Your task to perform on an android device: turn off javascript in the chrome app Image 0: 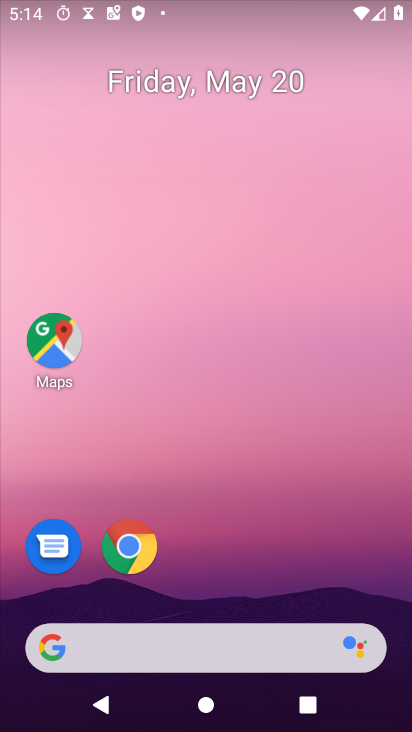
Step 0: click (131, 549)
Your task to perform on an android device: turn off javascript in the chrome app Image 1: 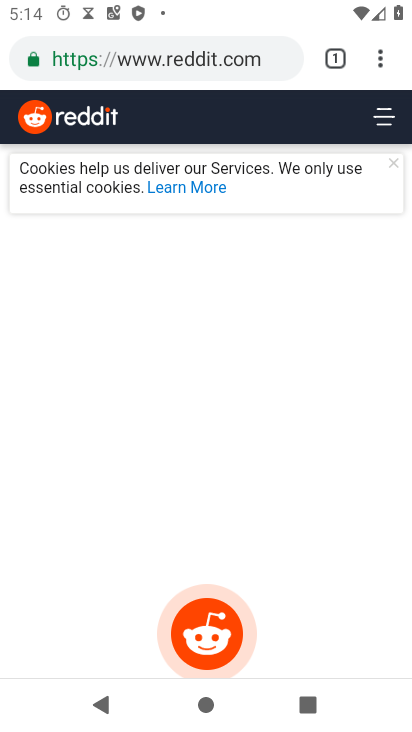
Step 1: click (379, 58)
Your task to perform on an android device: turn off javascript in the chrome app Image 2: 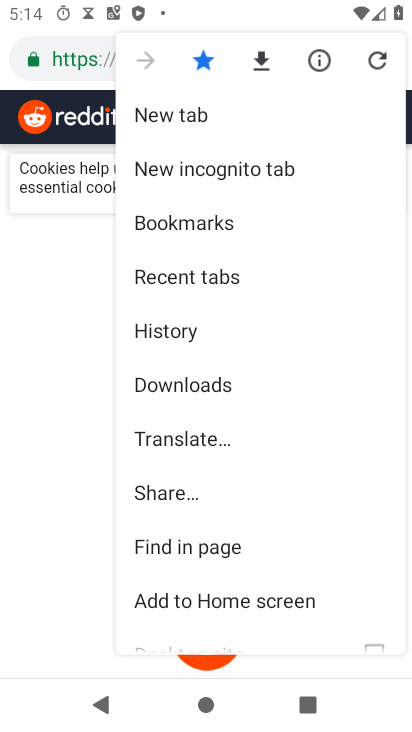
Step 2: drag from (223, 510) to (254, 445)
Your task to perform on an android device: turn off javascript in the chrome app Image 3: 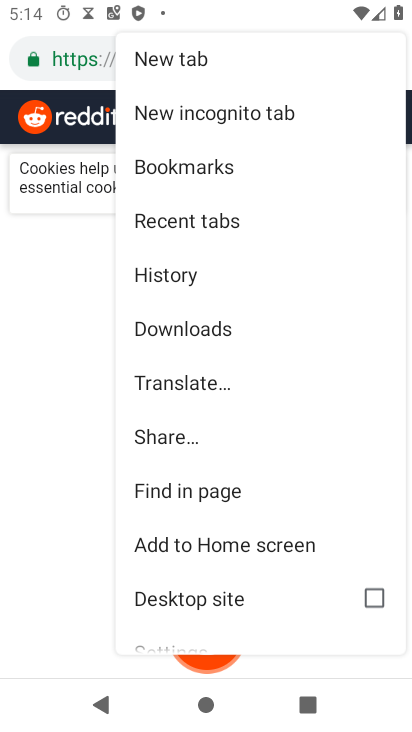
Step 3: drag from (225, 578) to (273, 462)
Your task to perform on an android device: turn off javascript in the chrome app Image 4: 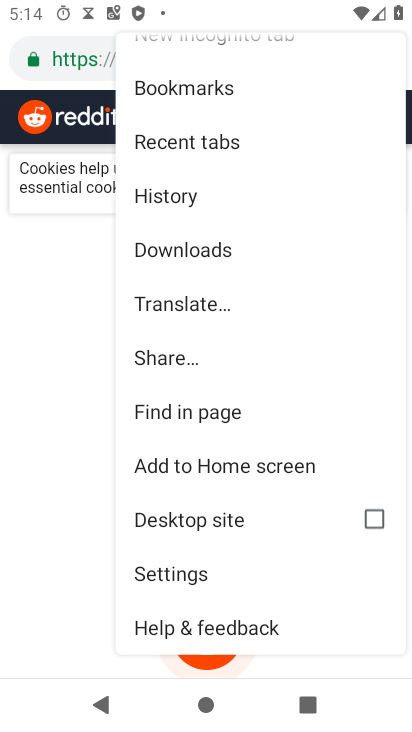
Step 4: click (181, 579)
Your task to perform on an android device: turn off javascript in the chrome app Image 5: 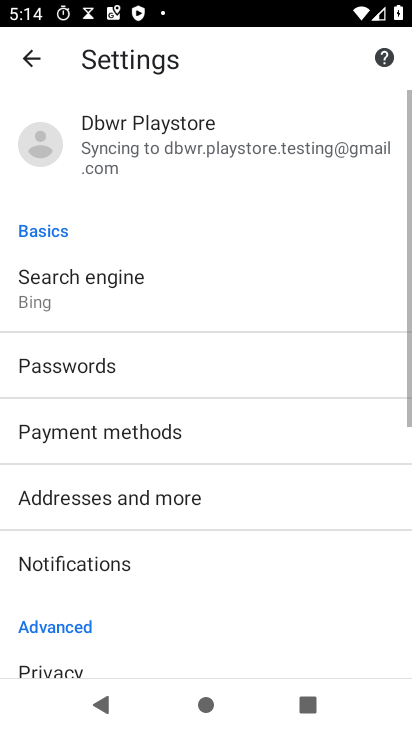
Step 5: drag from (128, 580) to (217, 477)
Your task to perform on an android device: turn off javascript in the chrome app Image 6: 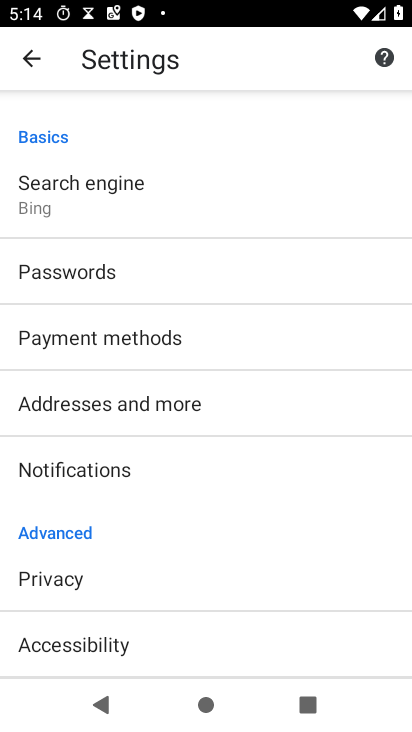
Step 6: drag from (123, 596) to (212, 486)
Your task to perform on an android device: turn off javascript in the chrome app Image 7: 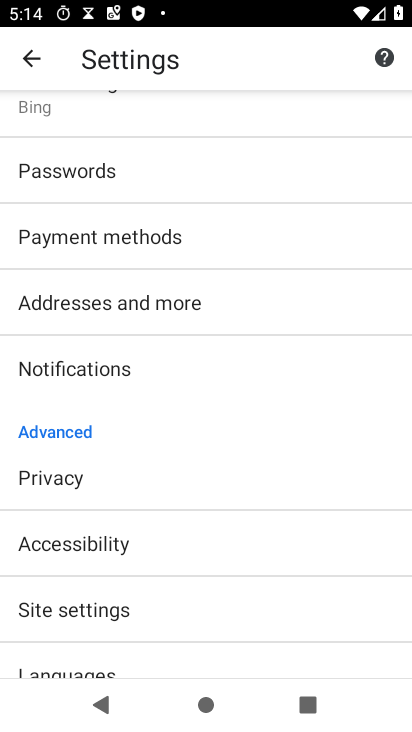
Step 7: drag from (137, 586) to (180, 507)
Your task to perform on an android device: turn off javascript in the chrome app Image 8: 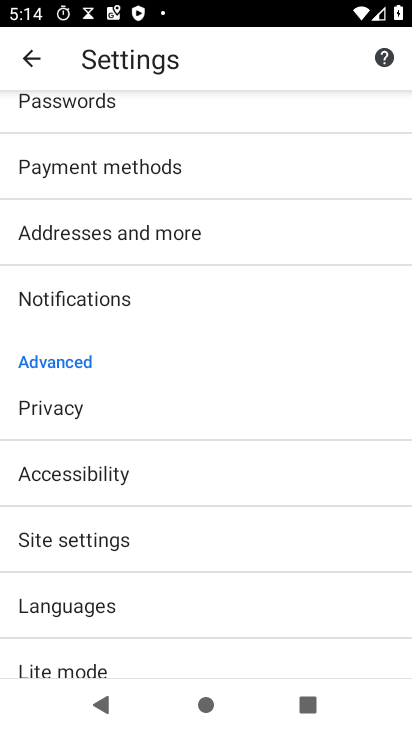
Step 8: drag from (142, 582) to (153, 513)
Your task to perform on an android device: turn off javascript in the chrome app Image 9: 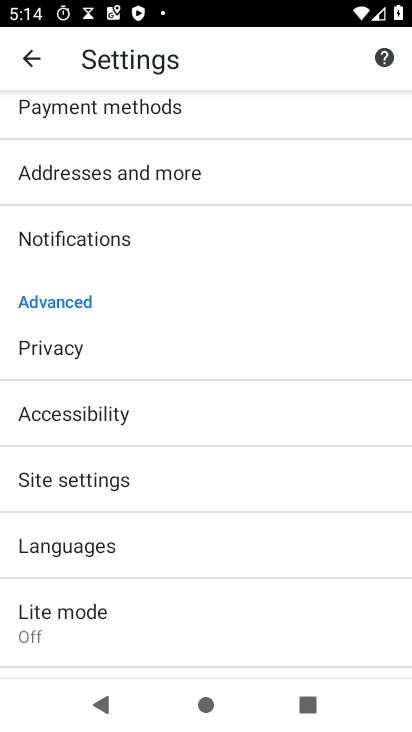
Step 9: click (104, 482)
Your task to perform on an android device: turn off javascript in the chrome app Image 10: 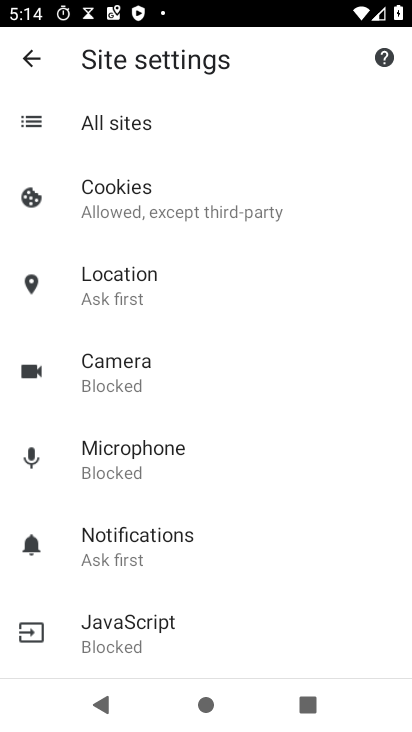
Step 10: drag from (181, 585) to (215, 504)
Your task to perform on an android device: turn off javascript in the chrome app Image 11: 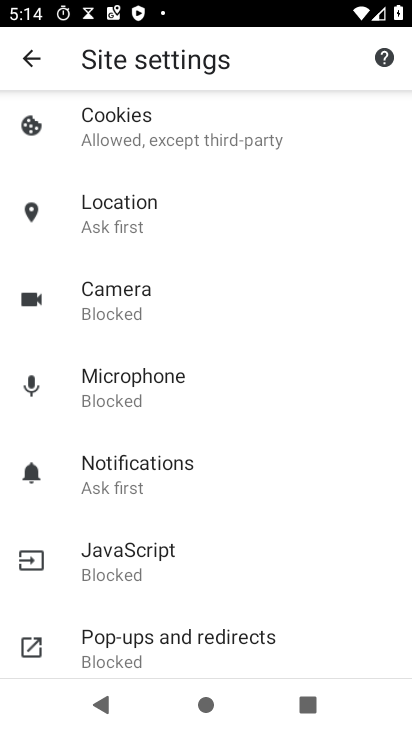
Step 11: click (151, 566)
Your task to perform on an android device: turn off javascript in the chrome app Image 12: 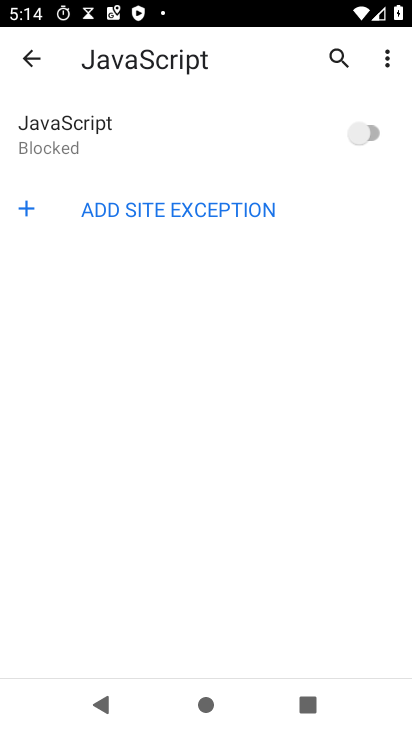
Step 12: task complete